Your task to perform on an android device: Open ESPN.com Image 0: 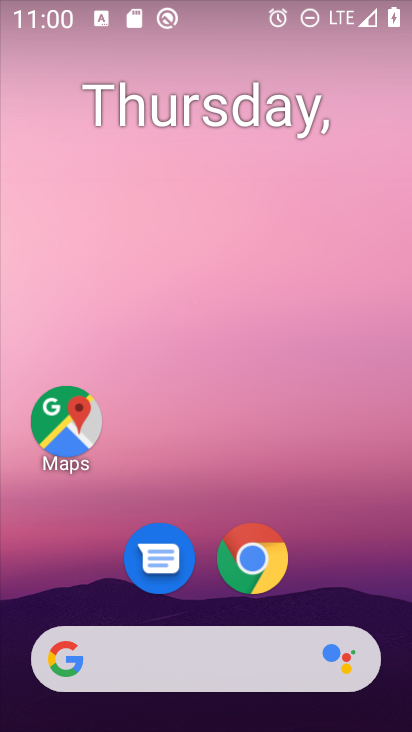
Step 0: click (249, 562)
Your task to perform on an android device: Open ESPN.com Image 1: 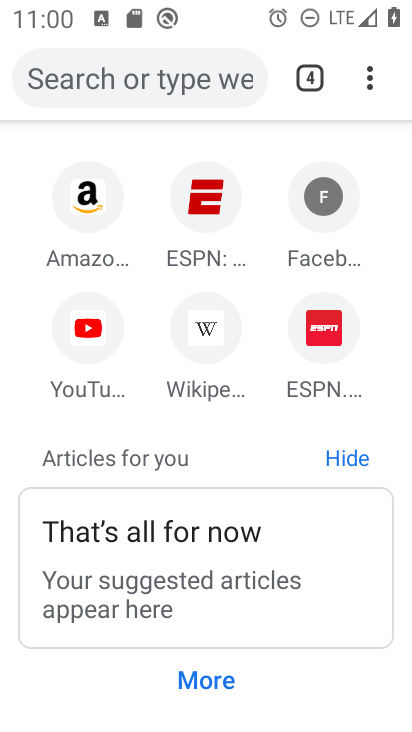
Step 1: click (204, 203)
Your task to perform on an android device: Open ESPN.com Image 2: 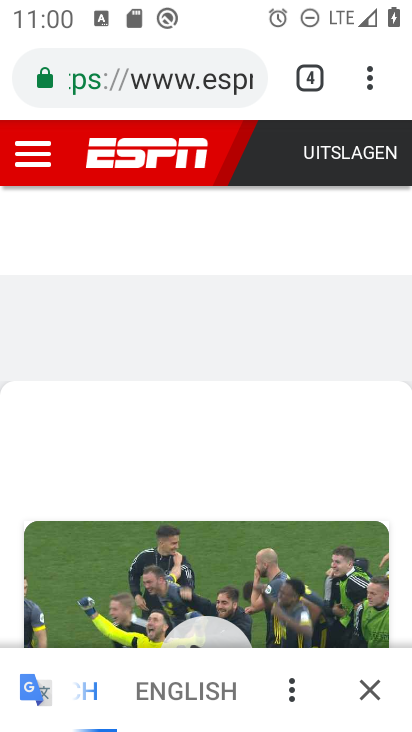
Step 2: task complete